Your task to perform on an android device: Open sound settings Image 0: 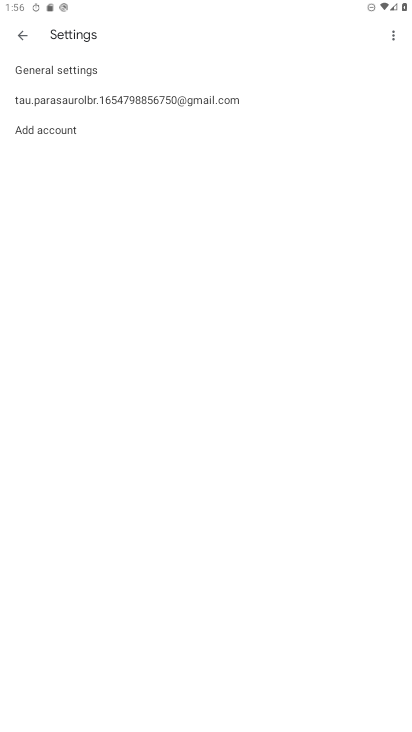
Step 0: press home button
Your task to perform on an android device: Open sound settings Image 1: 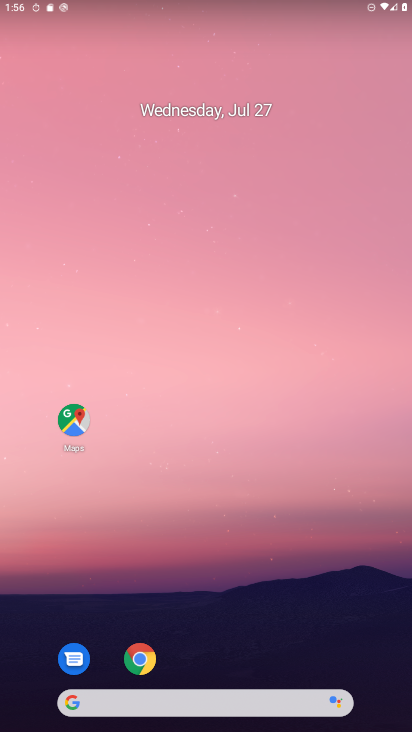
Step 1: drag from (251, 635) to (253, 103)
Your task to perform on an android device: Open sound settings Image 2: 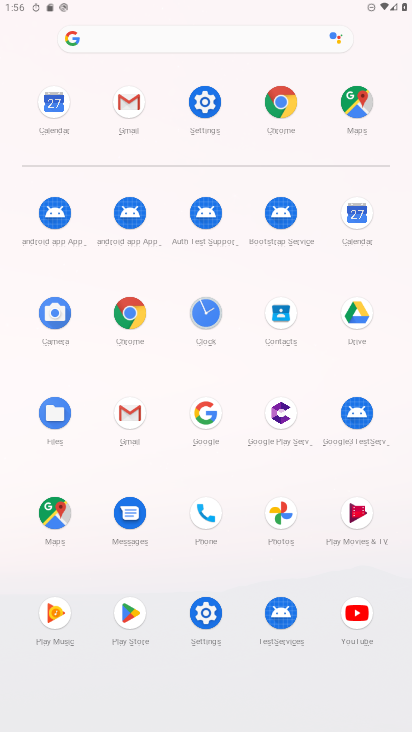
Step 2: click (203, 99)
Your task to perform on an android device: Open sound settings Image 3: 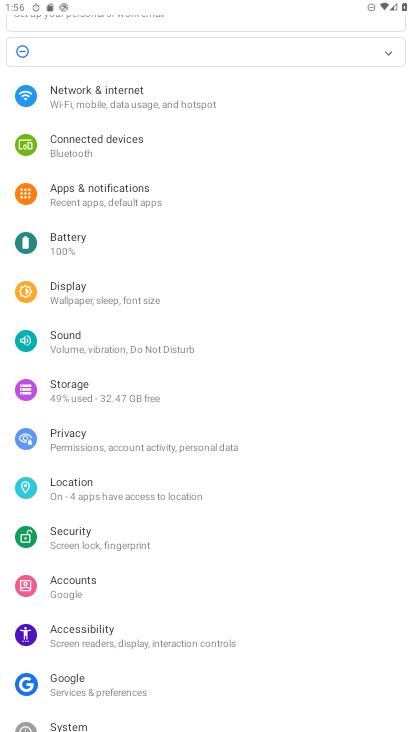
Step 3: click (74, 343)
Your task to perform on an android device: Open sound settings Image 4: 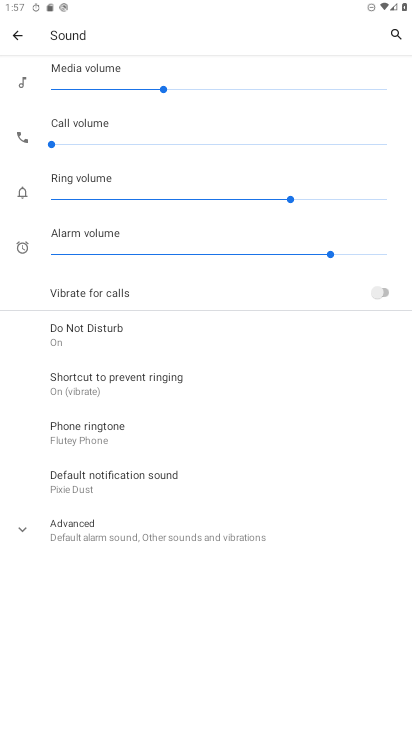
Step 4: task complete